Your task to perform on an android device: When is my next meeting? Image 0: 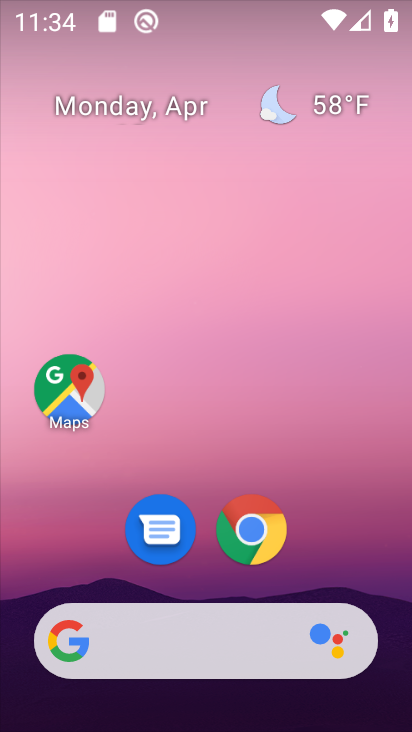
Step 0: drag from (369, 587) to (232, 98)
Your task to perform on an android device: When is my next meeting? Image 1: 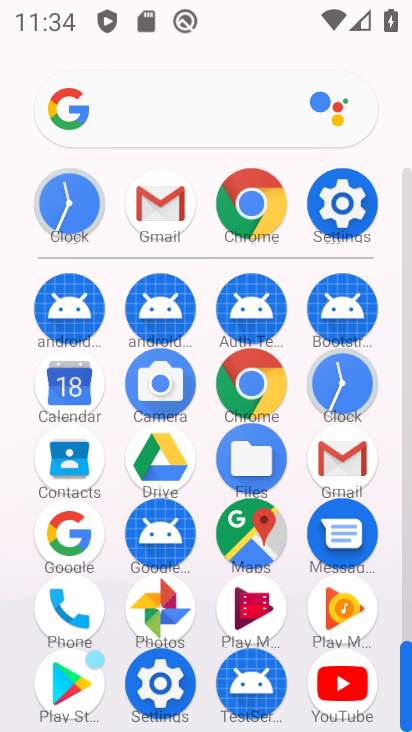
Step 1: click (80, 378)
Your task to perform on an android device: When is my next meeting? Image 2: 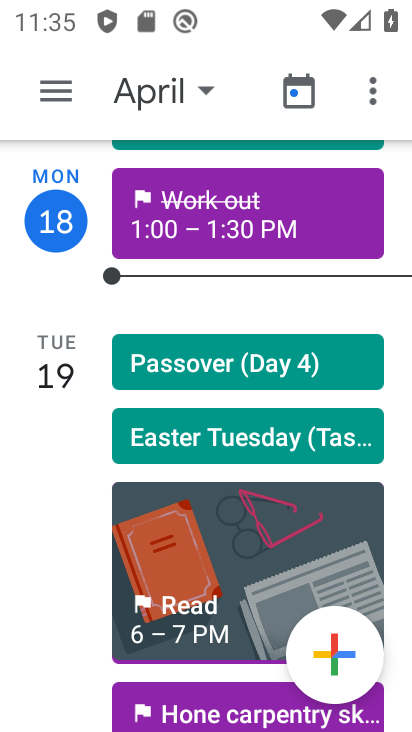
Step 2: click (170, 99)
Your task to perform on an android device: When is my next meeting? Image 3: 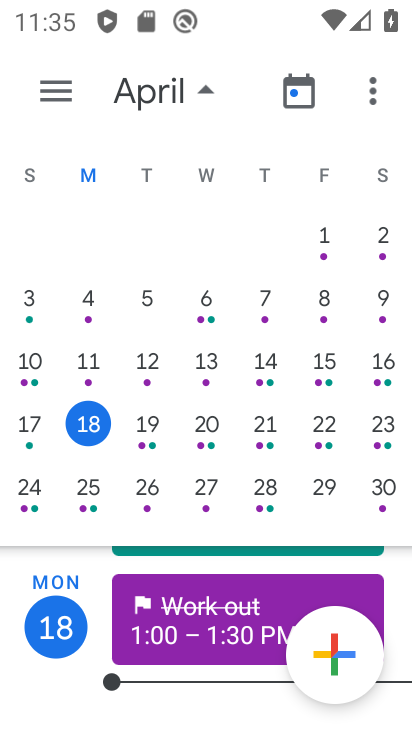
Step 3: click (140, 426)
Your task to perform on an android device: When is my next meeting? Image 4: 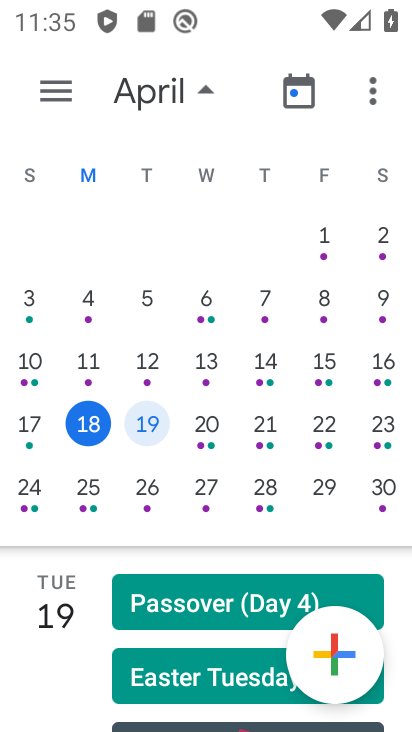
Step 4: click (52, 621)
Your task to perform on an android device: When is my next meeting? Image 5: 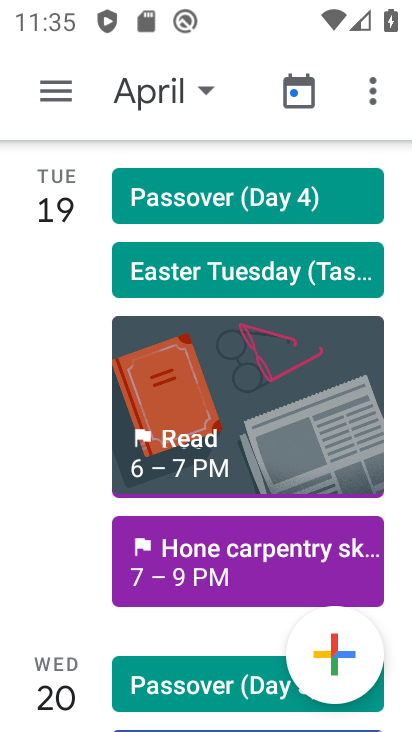
Step 5: task complete